Your task to perform on an android device: turn off airplane mode Image 0: 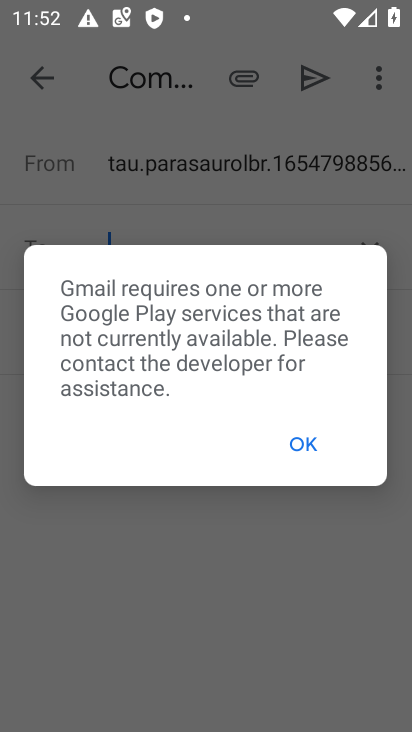
Step 0: press home button
Your task to perform on an android device: turn off airplane mode Image 1: 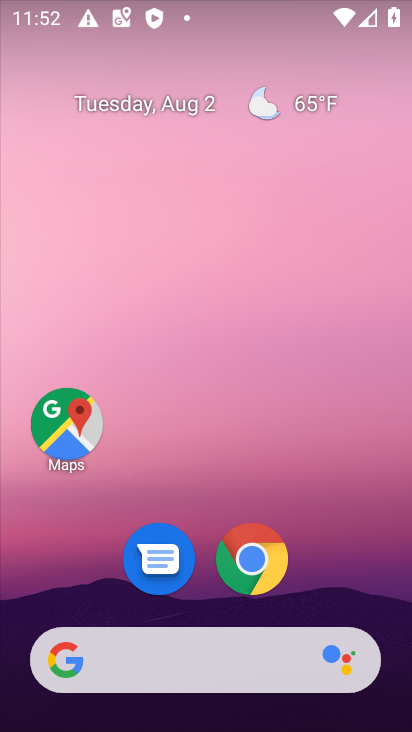
Step 1: drag from (203, 669) to (203, 246)
Your task to perform on an android device: turn off airplane mode Image 2: 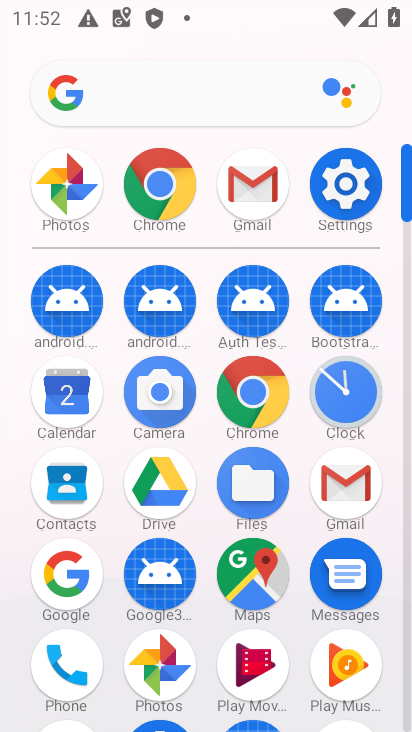
Step 2: click (340, 188)
Your task to perform on an android device: turn off airplane mode Image 3: 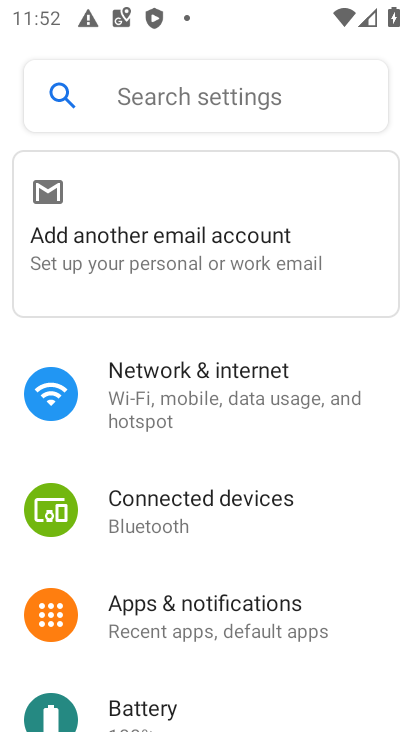
Step 3: click (149, 379)
Your task to perform on an android device: turn off airplane mode Image 4: 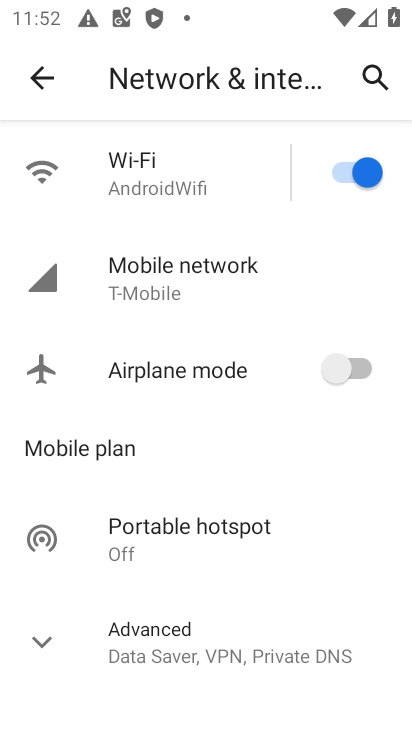
Step 4: task complete